Your task to perform on an android device: choose inbox layout in the gmail app Image 0: 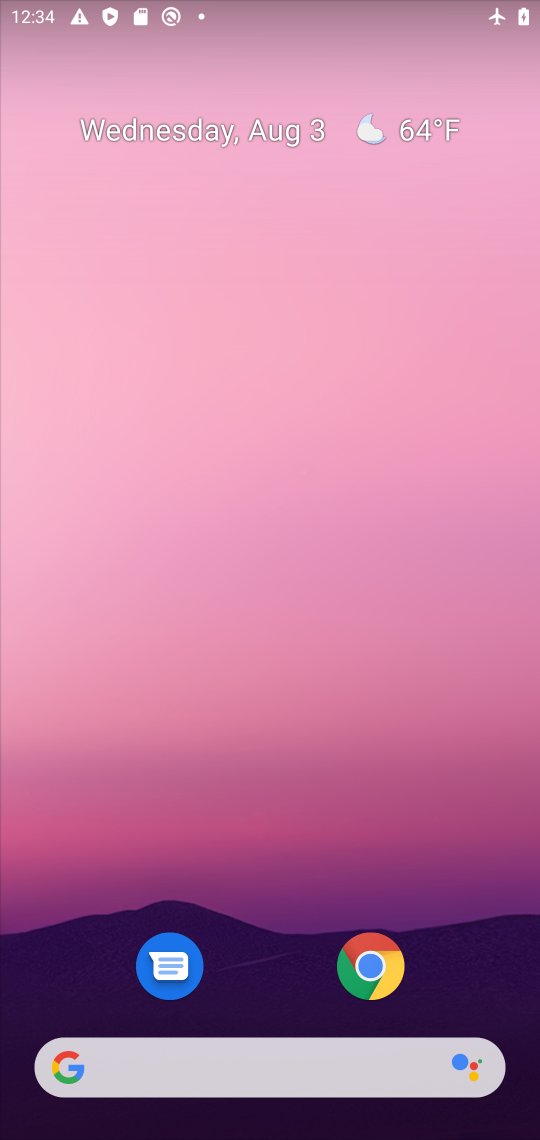
Step 0: drag from (261, 977) to (257, 206)
Your task to perform on an android device: choose inbox layout in the gmail app Image 1: 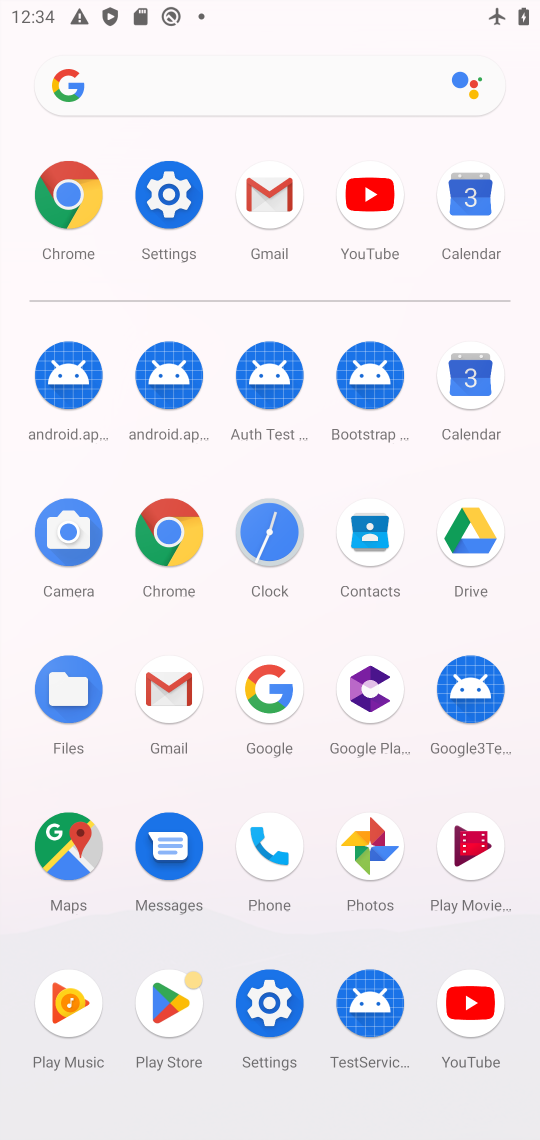
Step 1: click (242, 193)
Your task to perform on an android device: choose inbox layout in the gmail app Image 2: 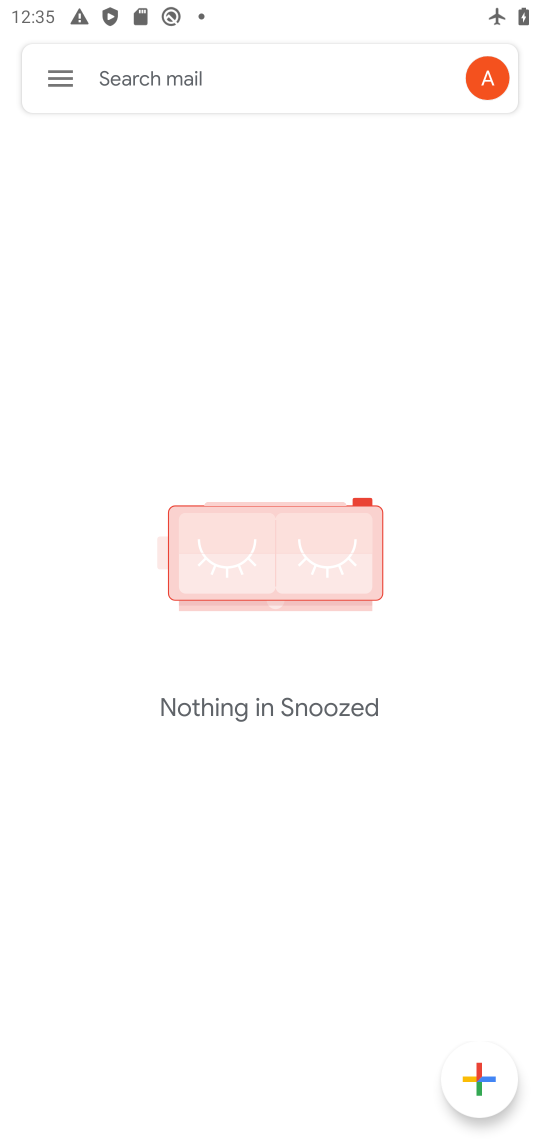
Step 2: click (23, 74)
Your task to perform on an android device: choose inbox layout in the gmail app Image 3: 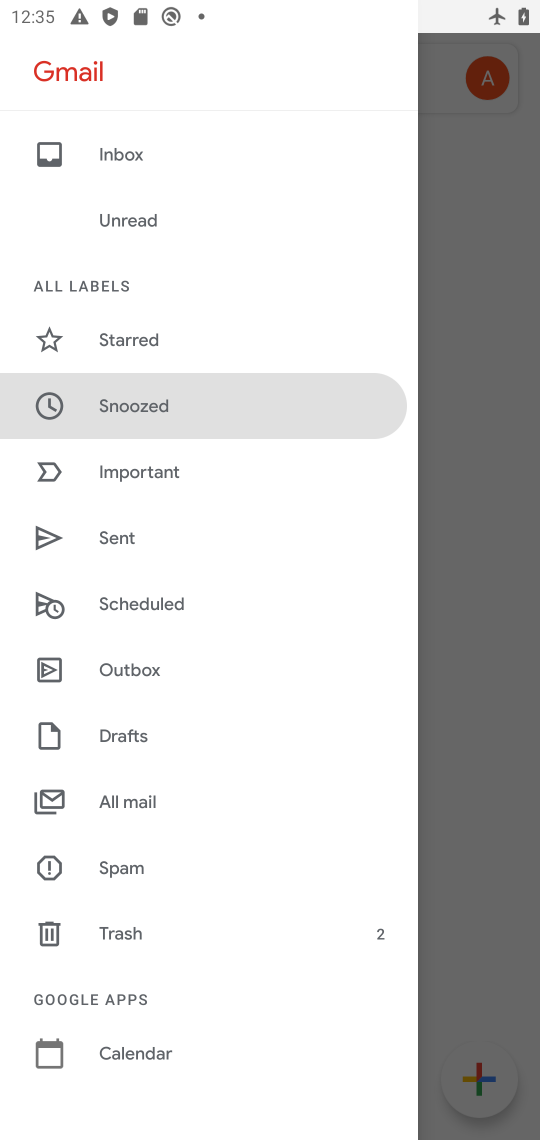
Step 3: drag from (161, 975) to (166, 334)
Your task to perform on an android device: choose inbox layout in the gmail app Image 4: 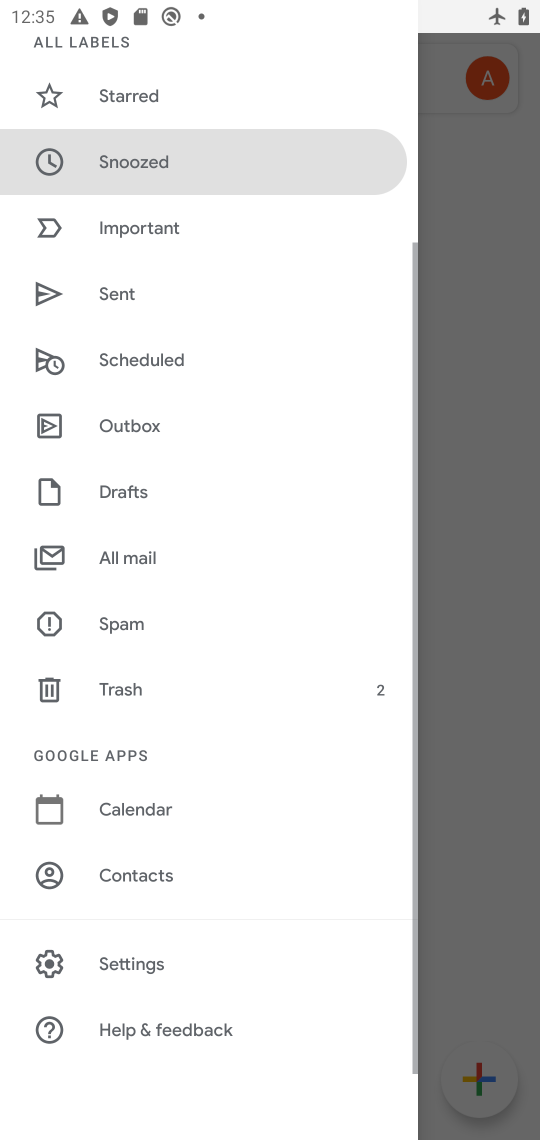
Step 4: click (157, 958)
Your task to perform on an android device: choose inbox layout in the gmail app Image 5: 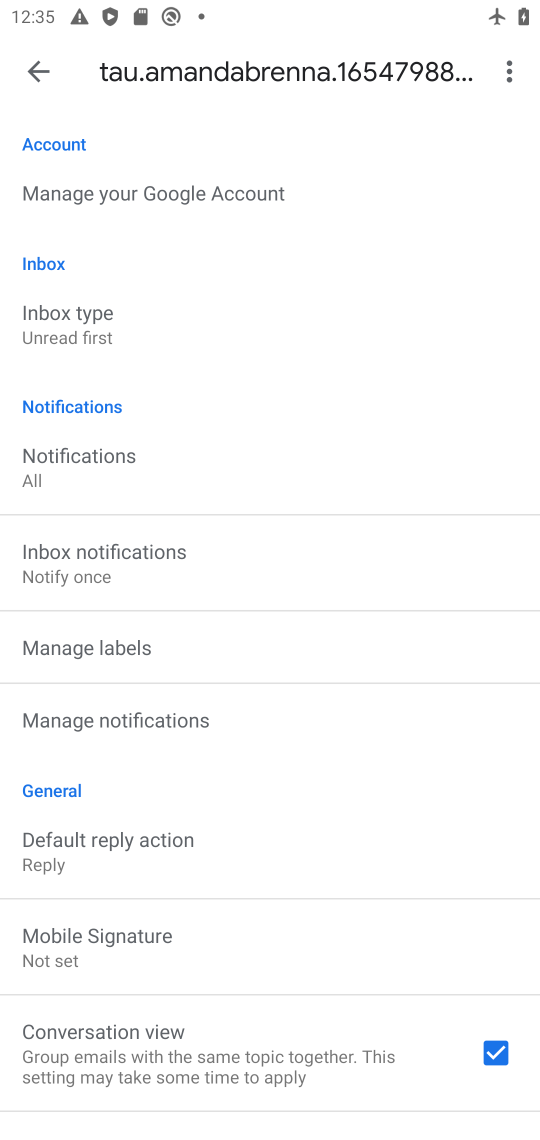
Step 5: click (158, 328)
Your task to perform on an android device: choose inbox layout in the gmail app Image 6: 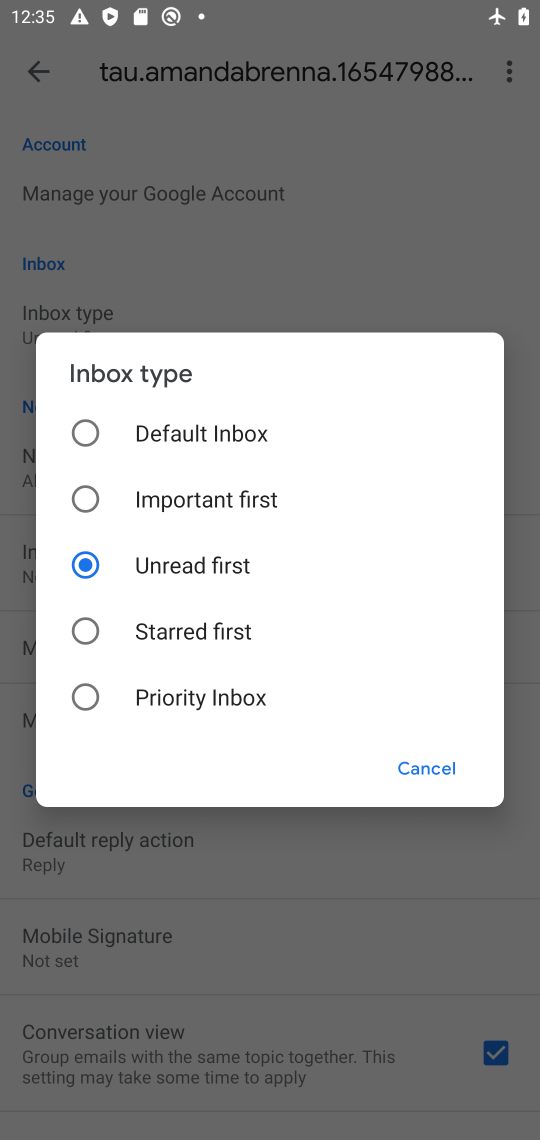
Step 6: click (189, 460)
Your task to perform on an android device: choose inbox layout in the gmail app Image 7: 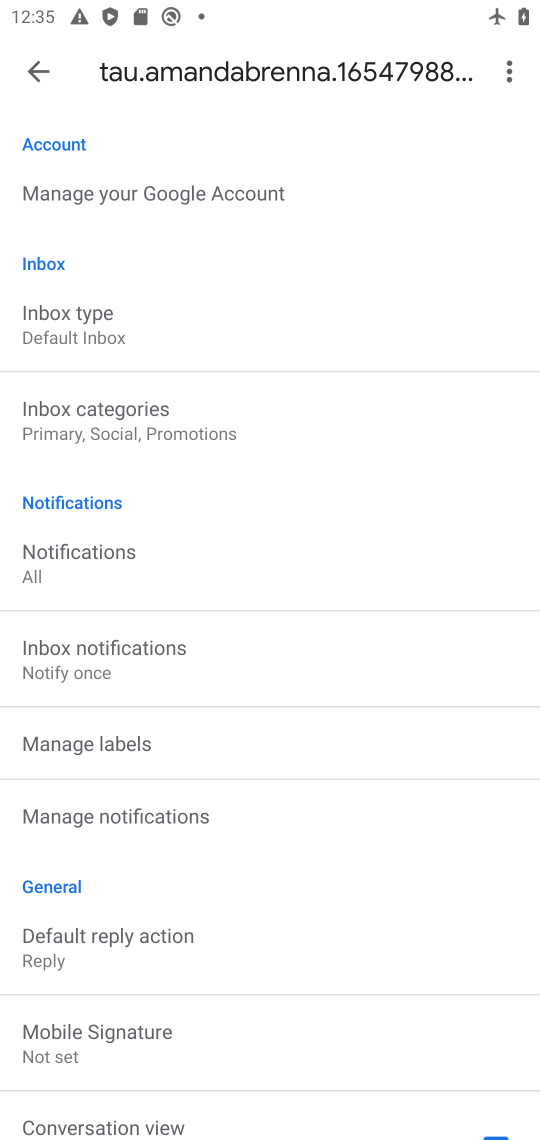
Step 7: task complete